Your task to perform on an android device: change the clock style Image 0: 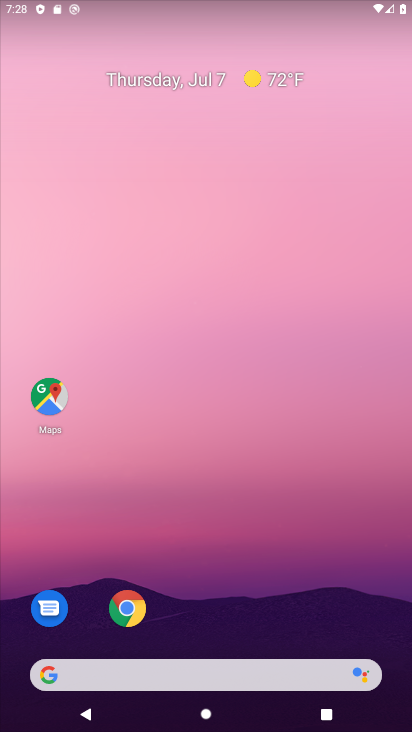
Step 0: drag from (380, 670) to (138, 39)
Your task to perform on an android device: change the clock style Image 1: 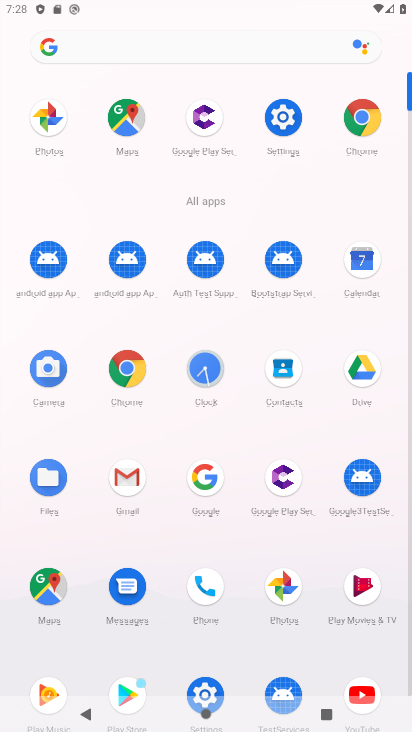
Step 1: click (202, 367)
Your task to perform on an android device: change the clock style Image 2: 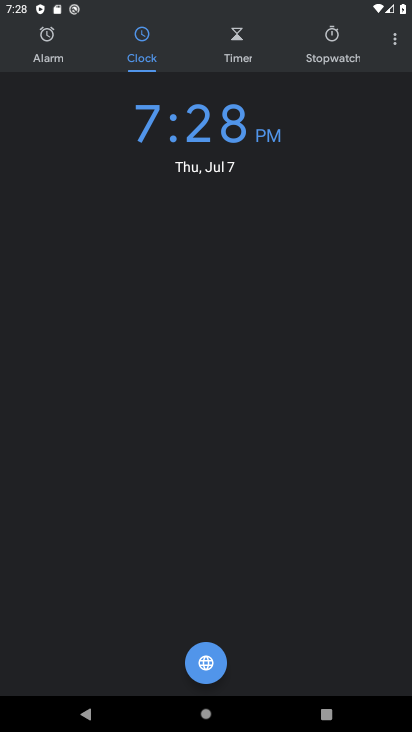
Step 2: click (391, 40)
Your task to perform on an android device: change the clock style Image 3: 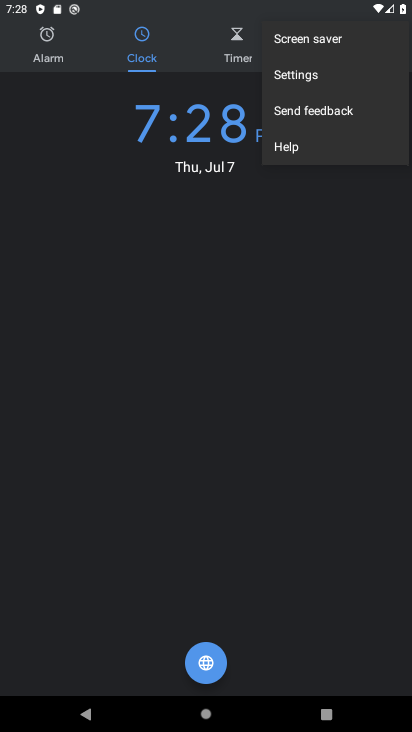
Step 3: click (315, 71)
Your task to perform on an android device: change the clock style Image 4: 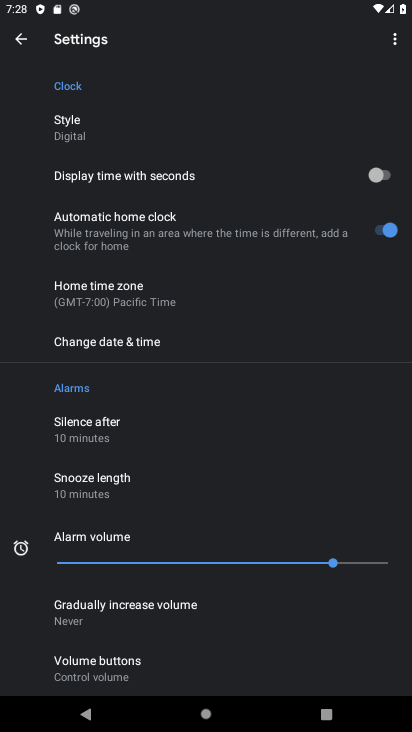
Step 4: click (56, 128)
Your task to perform on an android device: change the clock style Image 5: 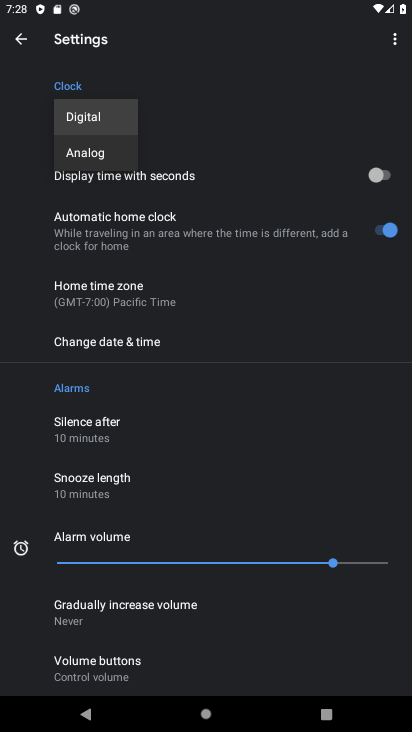
Step 5: click (96, 148)
Your task to perform on an android device: change the clock style Image 6: 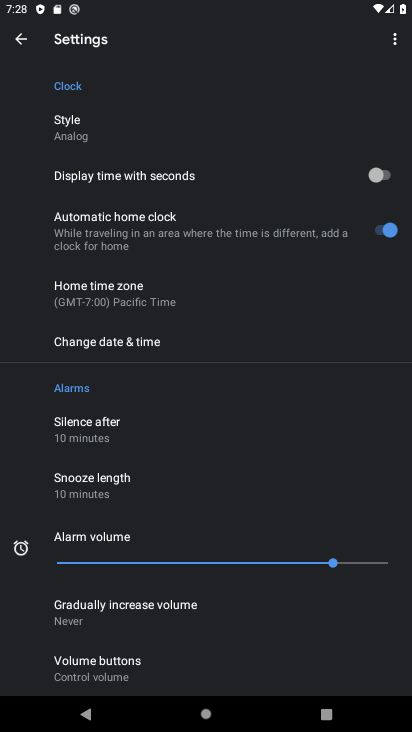
Step 6: task complete